Your task to perform on an android device: Open Maps and search for coffee Image 0: 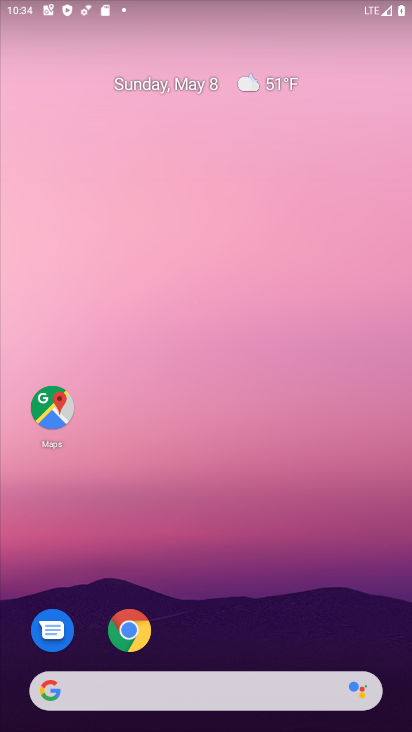
Step 0: drag from (384, 625) to (318, 73)
Your task to perform on an android device: Open Maps and search for coffee Image 1: 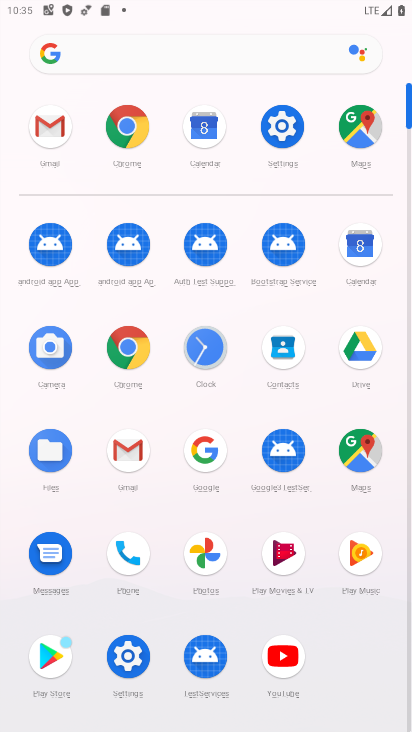
Step 1: click (375, 447)
Your task to perform on an android device: Open Maps and search for coffee Image 2: 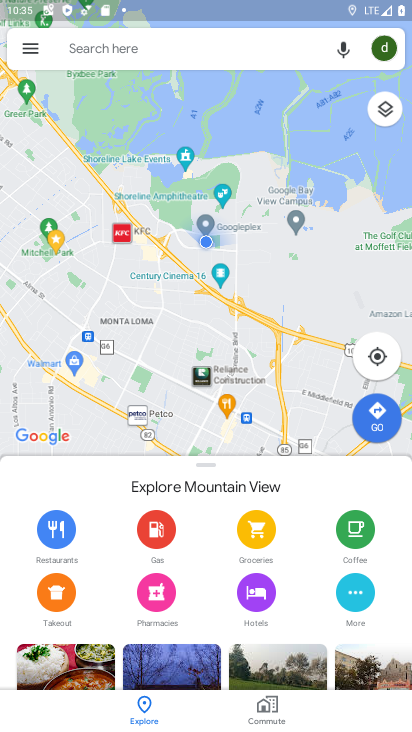
Step 2: click (132, 54)
Your task to perform on an android device: Open Maps and search for coffee Image 3: 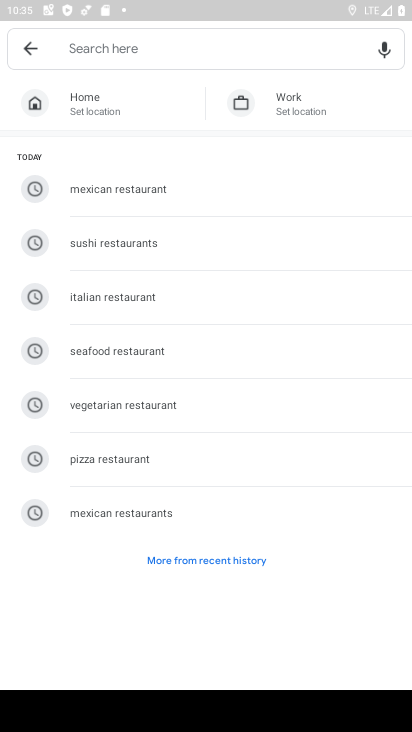
Step 3: type "coffee"
Your task to perform on an android device: Open Maps and search for coffee Image 4: 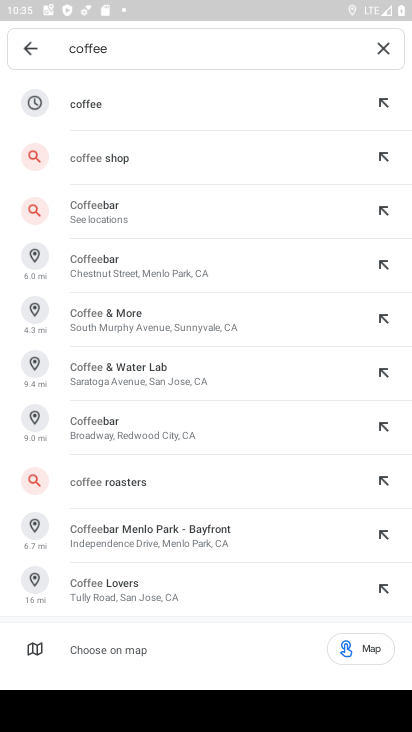
Step 4: click (129, 107)
Your task to perform on an android device: Open Maps and search for coffee Image 5: 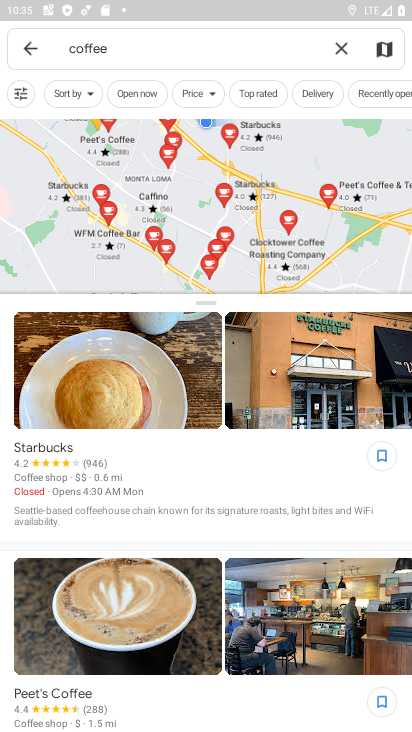
Step 5: task complete